Your task to perform on an android device: Is it going to rain this weekend? Image 0: 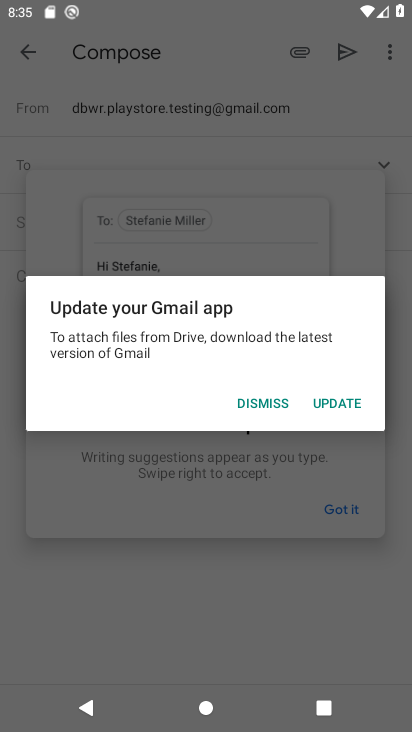
Step 0: press home button
Your task to perform on an android device: Is it going to rain this weekend? Image 1: 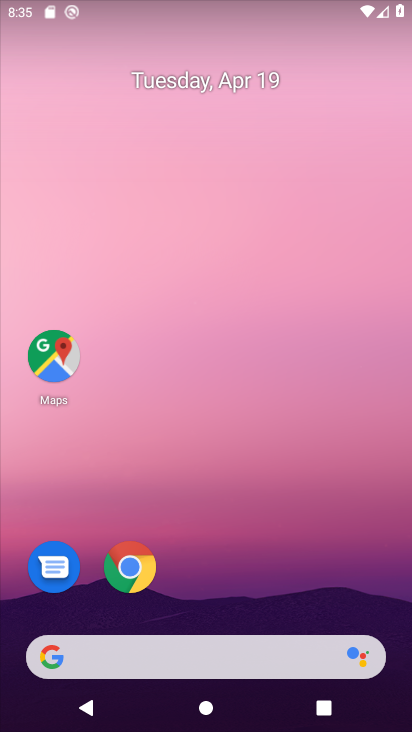
Step 1: drag from (47, 432) to (390, 436)
Your task to perform on an android device: Is it going to rain this weekend? Image 2: 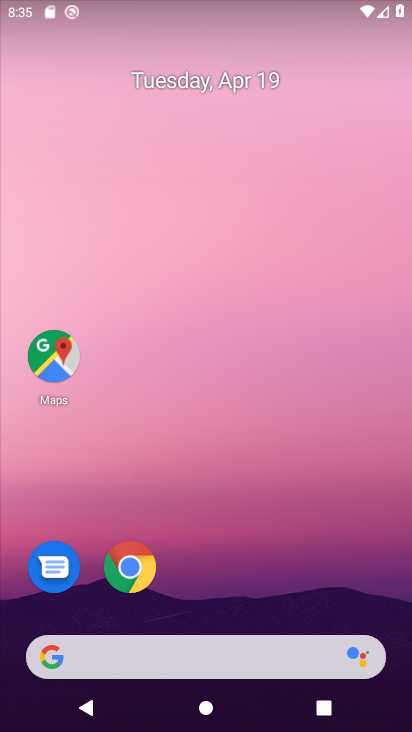
Step 2: drag from (35, 163) to (391, 165)
Your task to perform on an android device: Is it going to rain this weekend? Image 3: 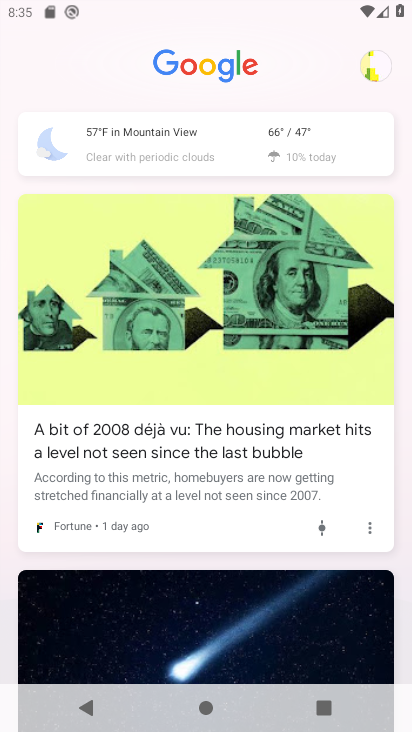
Step 3: click (252, 148)
Your task to perform on an android device: Is it going to rain this weekend? Image 4: 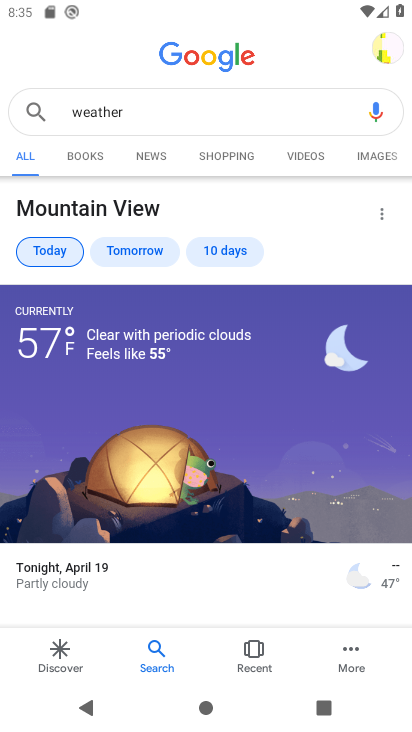
Step 4: task complete